Your task to perform on an android device: manage bookmarks in the chrome app Image 0: 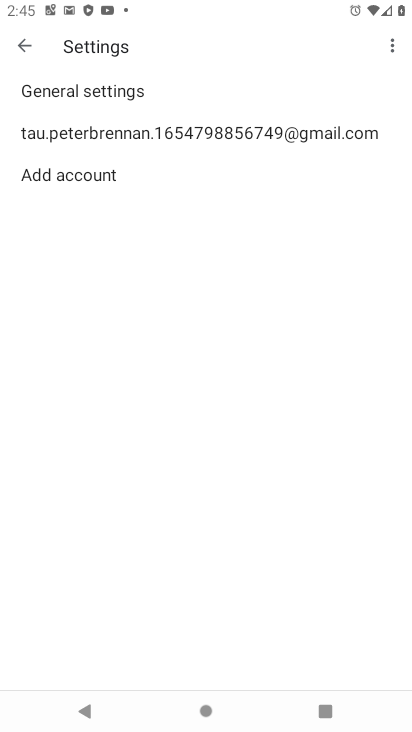
Step 0: press home button
Your task to perform on an android device: manage bookmarks in the chrome app Image 1: 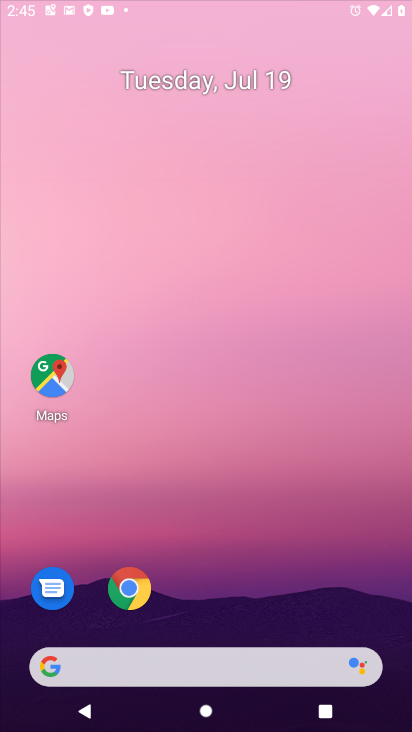
Step 1: drag from (390, 643) to (384, 587)
Your task to perform on an android device: manage bookmarks in the chrome app Image 2: 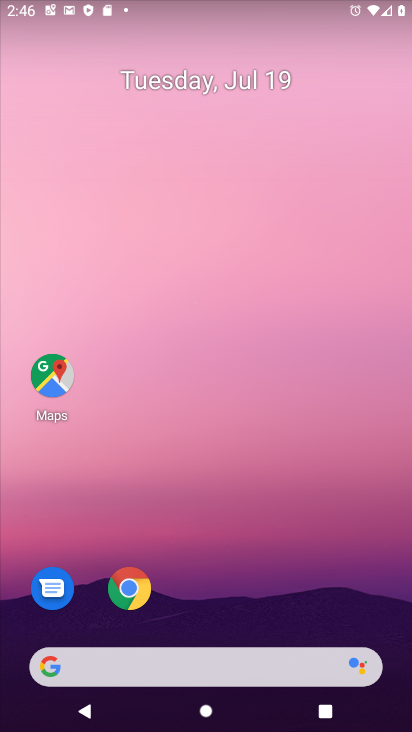
Step 2: drag from (310, 610) to (184, 2)
Your task to perform on an android device: manage bookmarks in the chrome app Image 3: 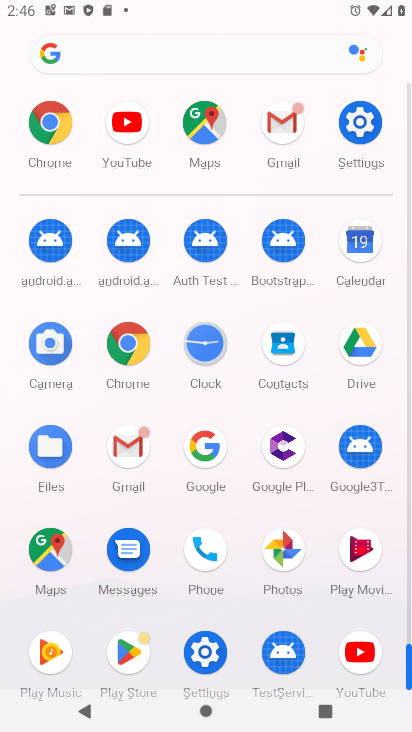
Step 3: click (64, 142)
Your task to perform on an android device: manage bookmarks in the chrome app Image 4: 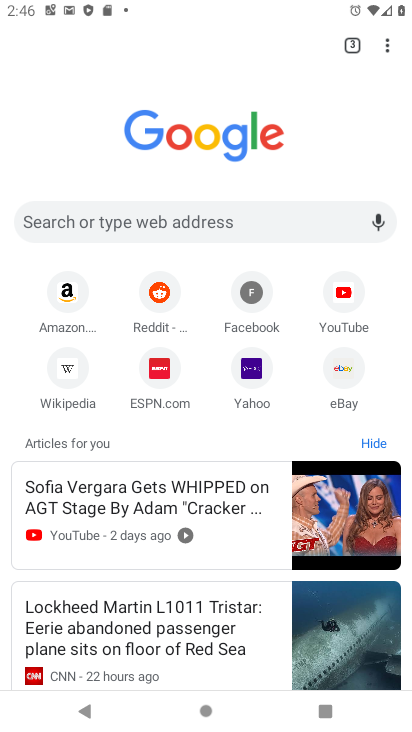
Step 4: click (387, 43)
Your task to perform on an android device: manage bookmarks in the chrome app Image 5: 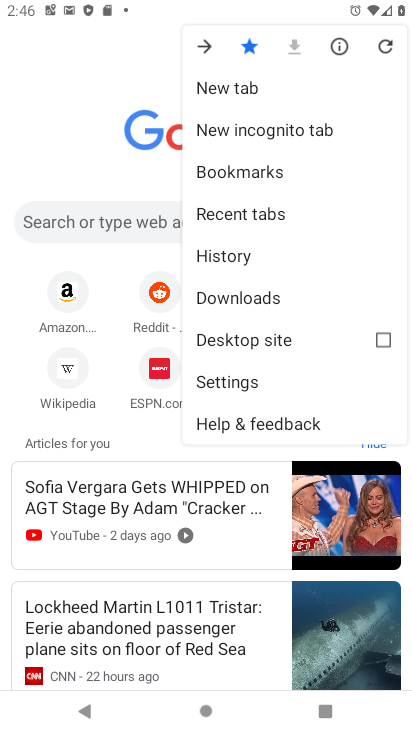
Step 5: click (220, 159)
Your task to perform on an android device: manage bookmarks in the chrome app Image 6: 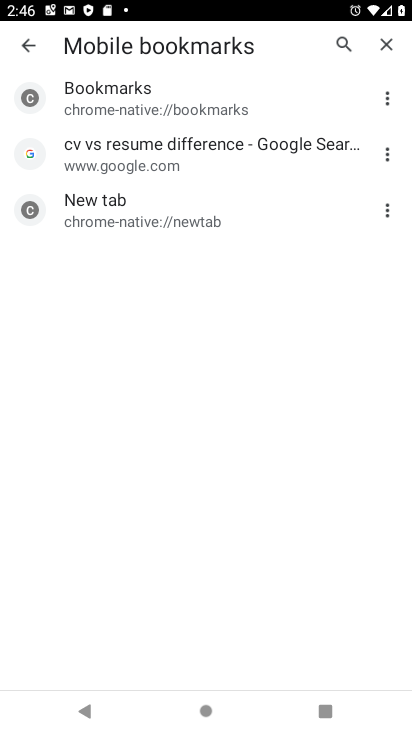
Step 6: task complete